Your task to perform on an android device: Open location settings Image 0: 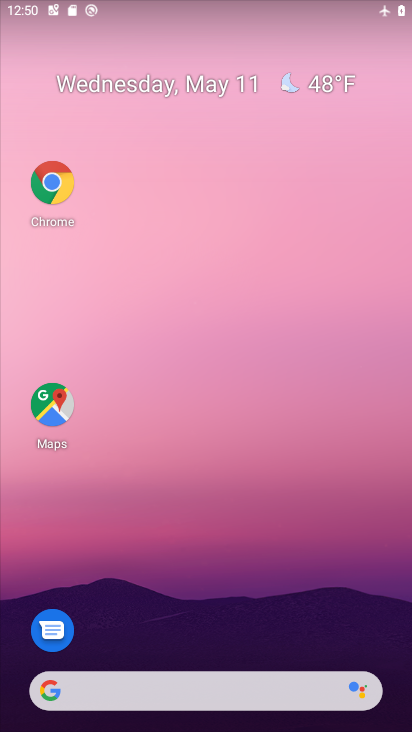
Step 0: drag from (206, 664) to (169, 2)
Your task to perform on an android device: Open location settings Image 1: 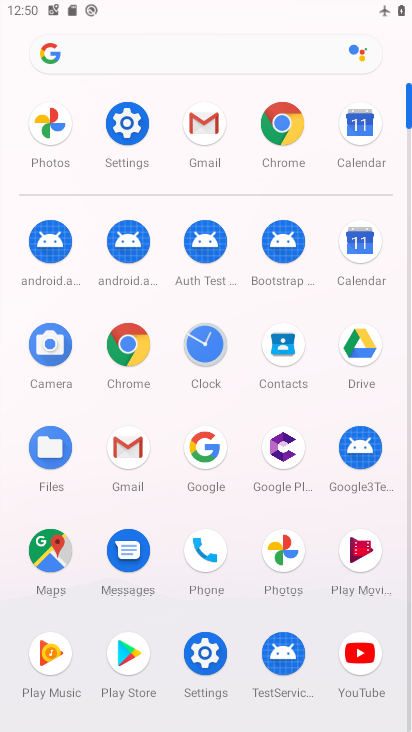
Step 1: click (133, 122)
Your task to perform on an android device: Open location settings Image 2: 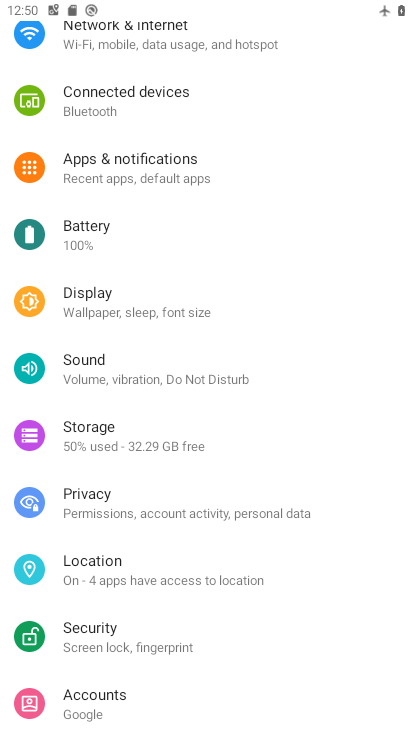
Step 2: click (80, 569)
Your task to perform on an android device: Open location settings Image 3: 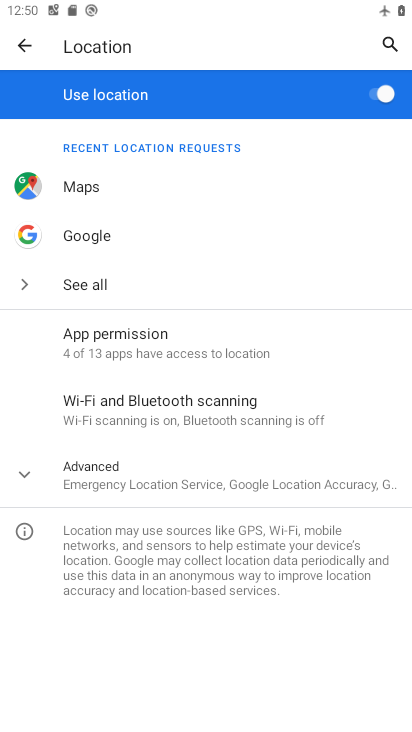
Step 3: task complete